Your task to perform on an android device: What's the weather? Image 0: 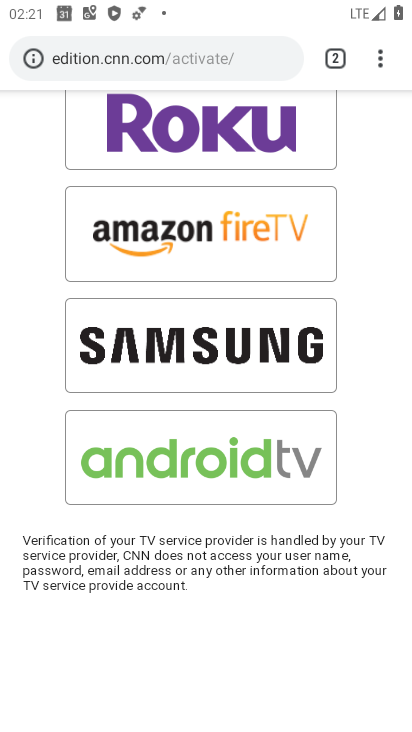
Step 0: press home button
Your task to perform on an android device: What's the weather? Image 1: 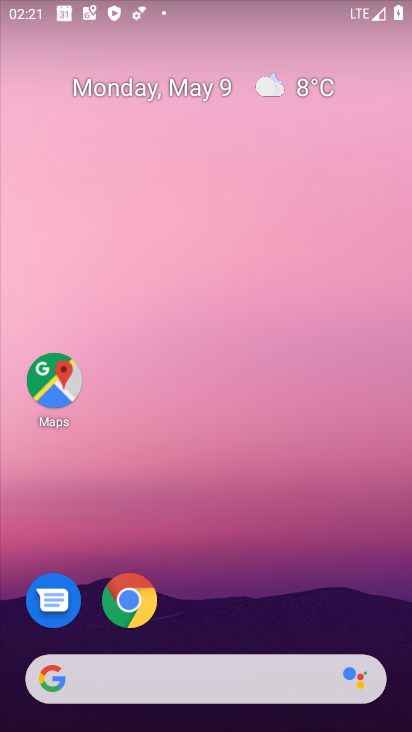
Step 1: click (304, 87)
Your task to perform on an android device: What's the weather? Image 2: 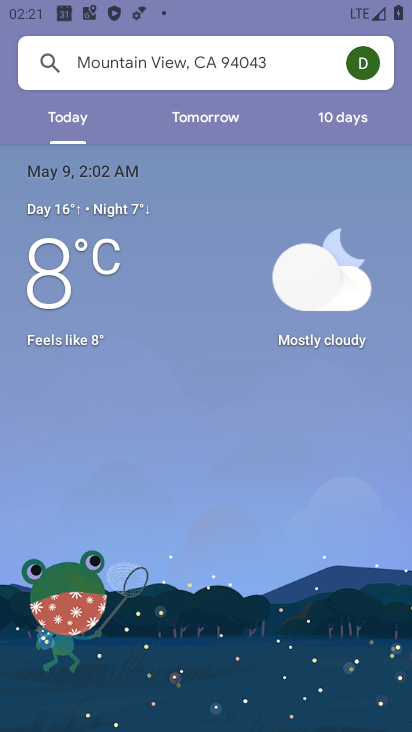
Step 2: drag from (194, 588) to (216, 45)
Your task to perform on an android device: What's the weather? Image 3: 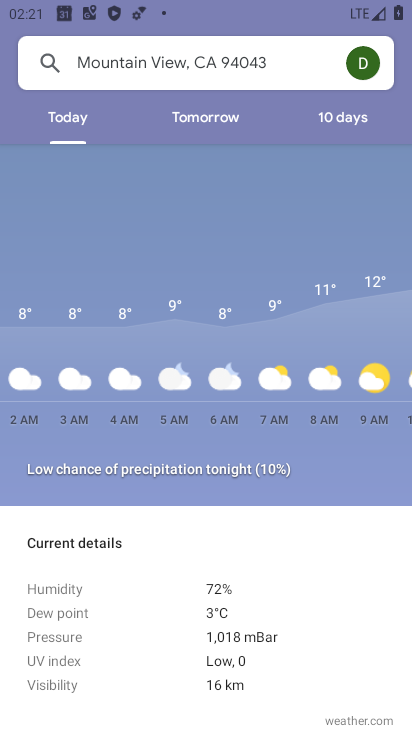
Step 3: drag from (332, 375) to (98, 394)
Your task to perform on an android device: What's the weather? Image 4: 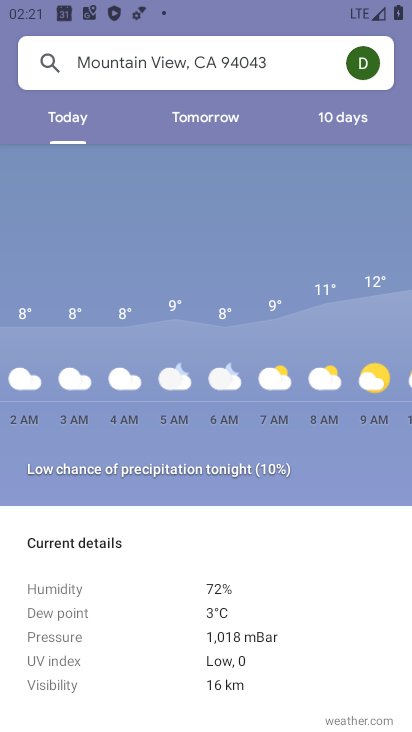
Step 4: click (13, 392)
Your task to perform on an android device: What's the weather? Image 5: 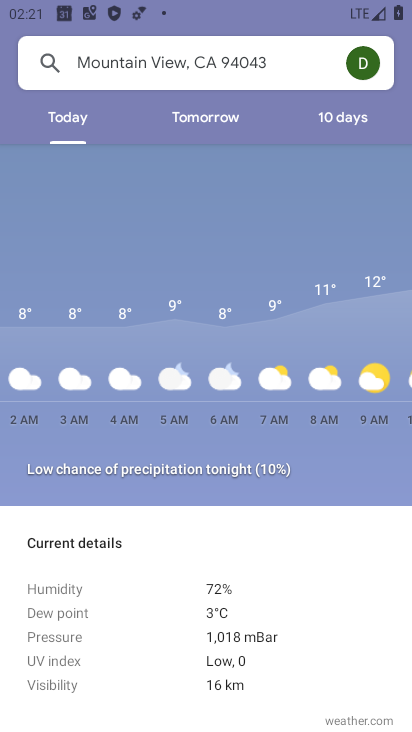
Step 5: task complete